Your task to perform on an android device: What's the weather going to be tomorrow? Image 0: 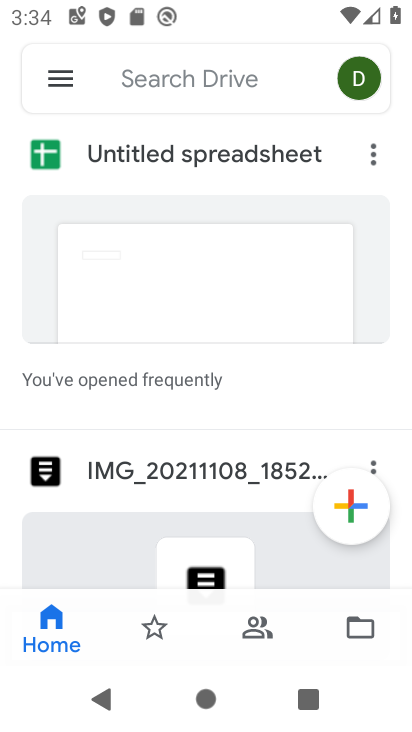
Step 0: press home button
Your task to perform on an android device: What's the weather going to be tomorrow? Image 1: 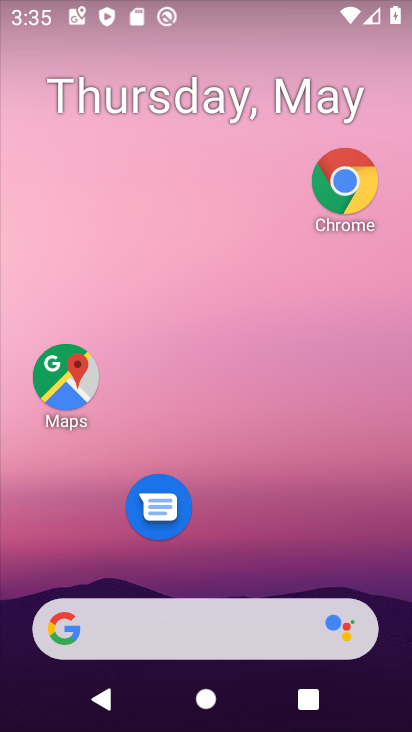
Step 1: drag from (234, 545) to (241, 84)
Your task to perform on an android device: What's the weather going to be tomorrow? Image 2: 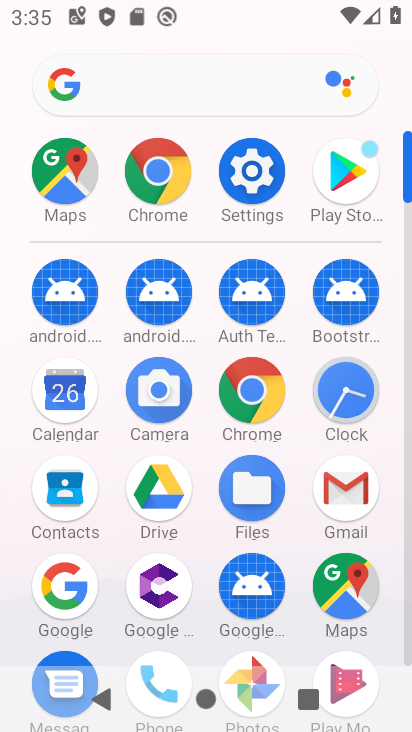
Step 2: click (356, 580)
Your task to perform on an android device: What's the weather going to be tomorrow? Image 3: 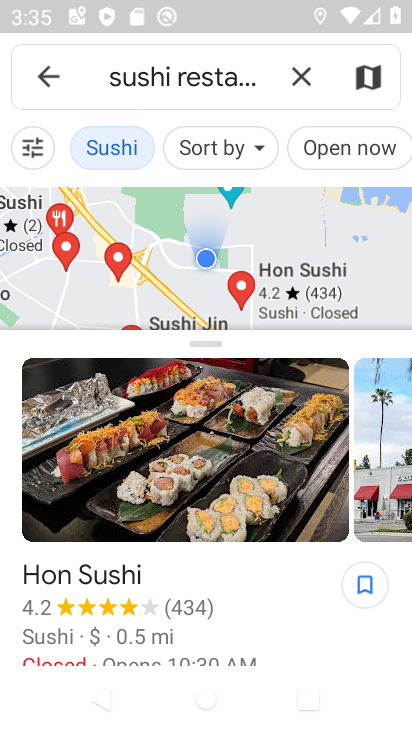
Step 3: press home button
Your task to perform on an android device: What's the weather going to be tomorrow? Image 4: 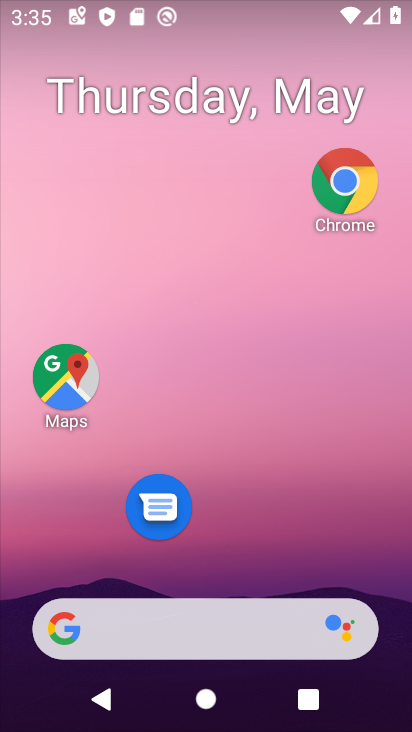
Step 4: click (347, 171)
Your task to perform on an android device: What's the weather going to be tomorrow? Image 5: 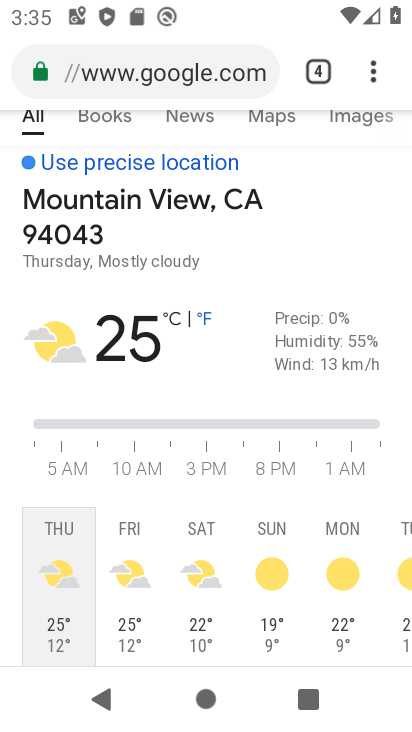
Step 5: click (236, 57)
Your task to perform on an android device: What's the weather going to be tomorrow? Image 6: 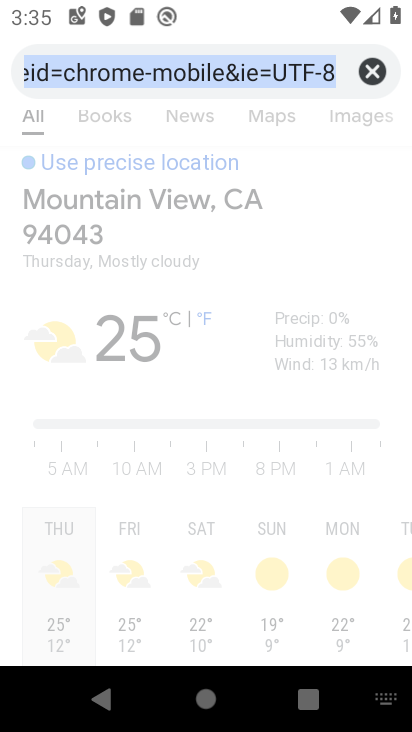
Step 6: click (369, 64)
Your task to perform on an android device: What's the weather going to be tomorrow? Image 7: 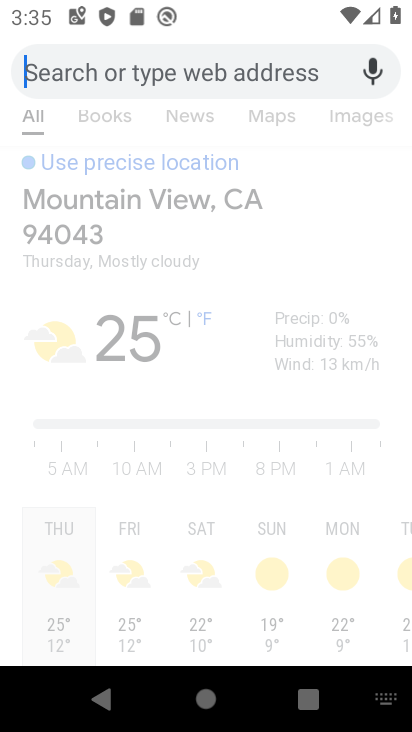
Step 7: type "What's the weather going to be tomorrow?"
Your task to perform on an android device: What's the weather going to be tomorrow? Image 8: 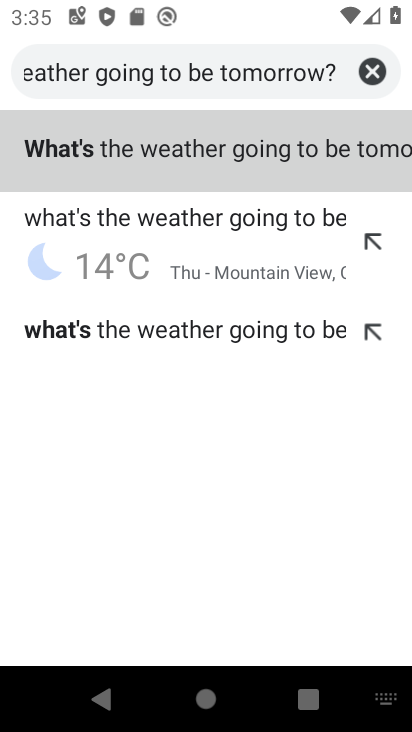
Step 8: click (283, 148)
Your task to perform on an android device: What's the weather going to be tomorrow? Image 9: 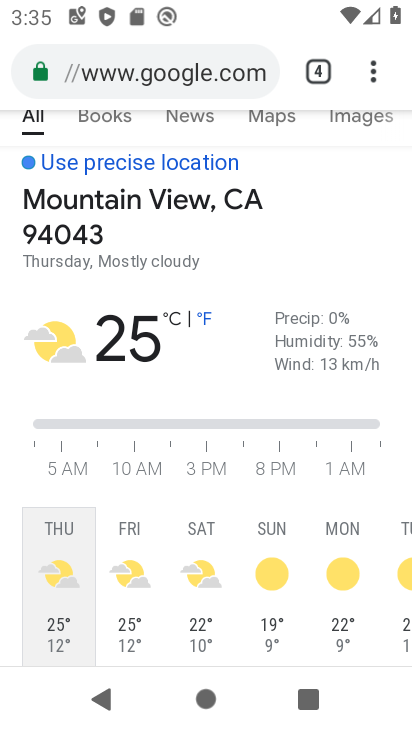
Step 9: task complete